Your task to perform on an android device: Open Google Maps and go to "Timeline" Image 0: 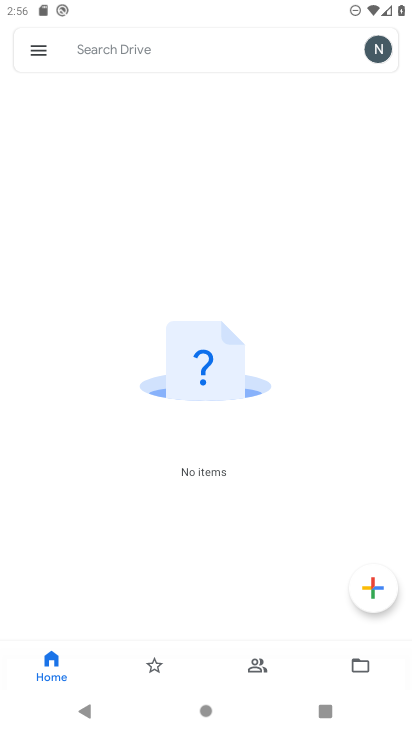
Step 0: press back button
Your task to perform on an android device: Open Google Maps and go to "Timeline" Image 1: 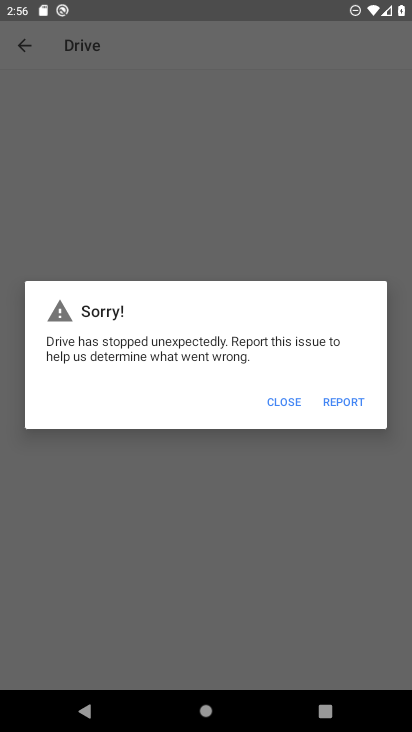
Step 1: press back button
Your task to perform on an android device: Open Google Maps and go to "Timeline" Image 2: 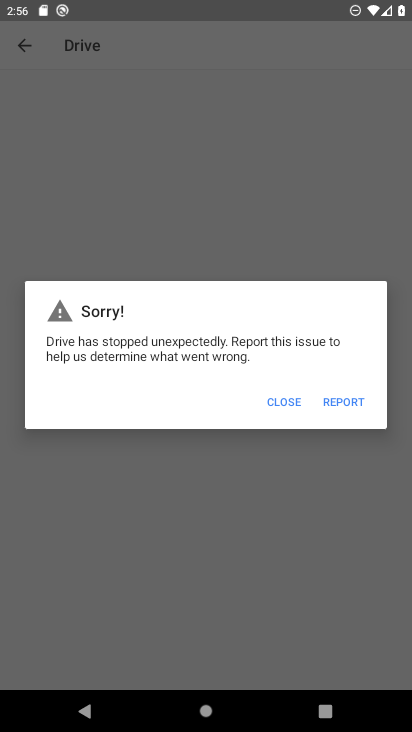
Step 2: press home button
Your task to perform on an android device: Open Google Maps and go to "Timeline" Image 3: 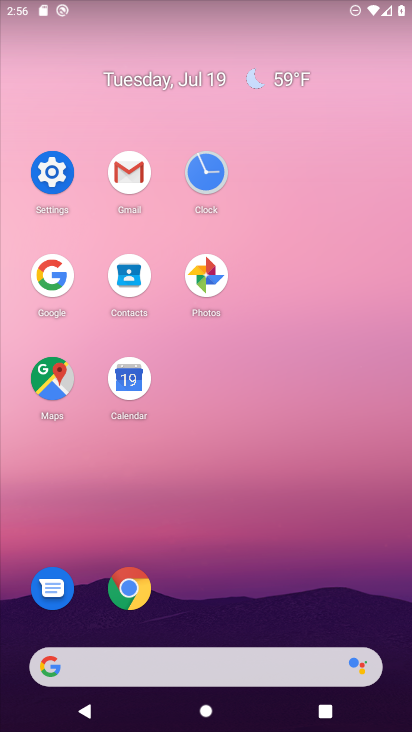
Step 3: click (47, 381)
Your task to perform on an android device: Open Google Maps and go to "Timeline" Image 4: 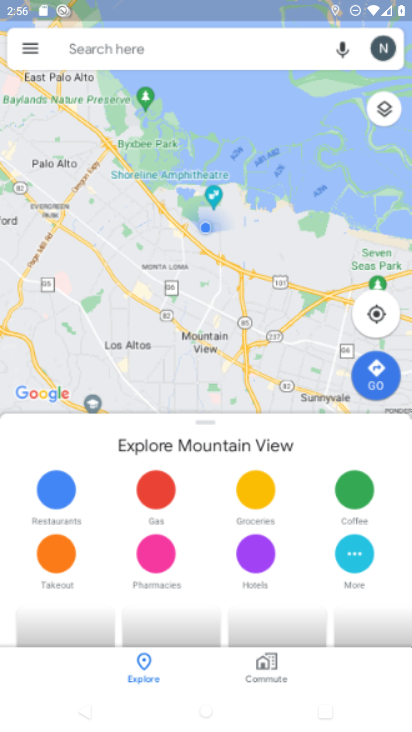
Step 4: click (24, 47)
Your task to perform on an android device: Open Google Maps and go to "Timeline" Image 5: 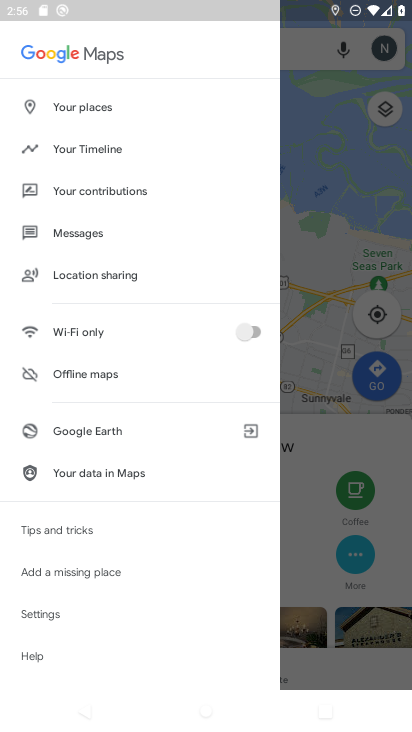
Step 5: click (96, 153)
Your task to perform on an android device: Open Google Maps and go to "Timeline" Image 6: 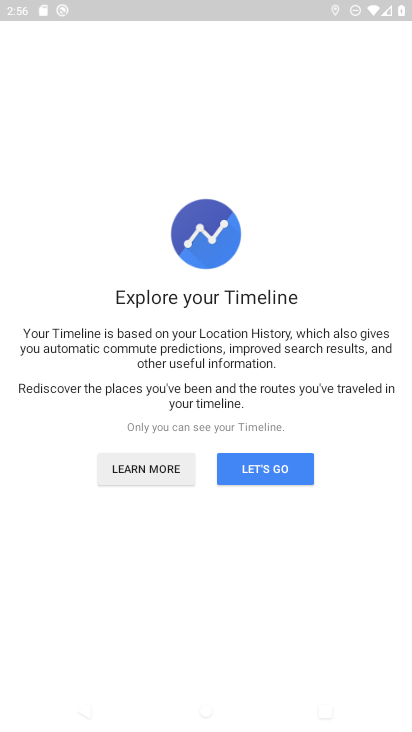
Step 6: task complete